Your task to perform on an android device: View the shopping cart on bestbuy.com. Add acer predator to the cart on bestbuy.com Image 0: 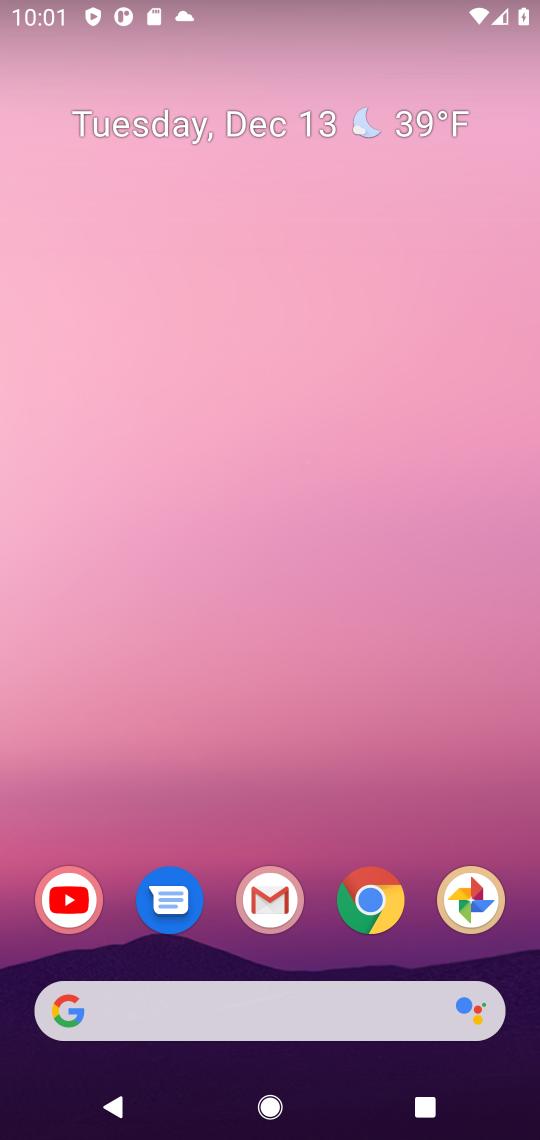
Step 0: task complete